Your task to perform on an android device: turn on data saver in the chrome app Image 0: 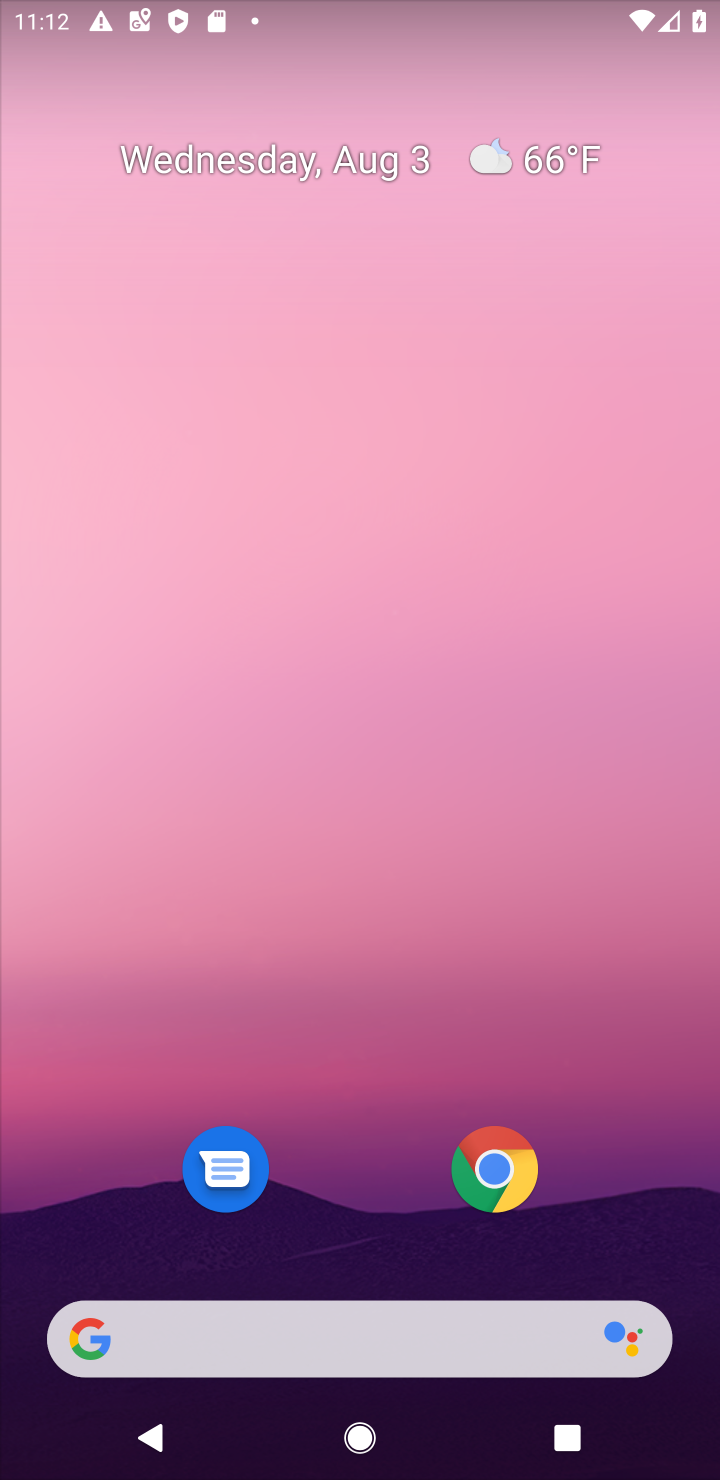
Step 0: click (507, 1178)
Your task to perform on an android device: turn on data saver in the chrome app Image 1: 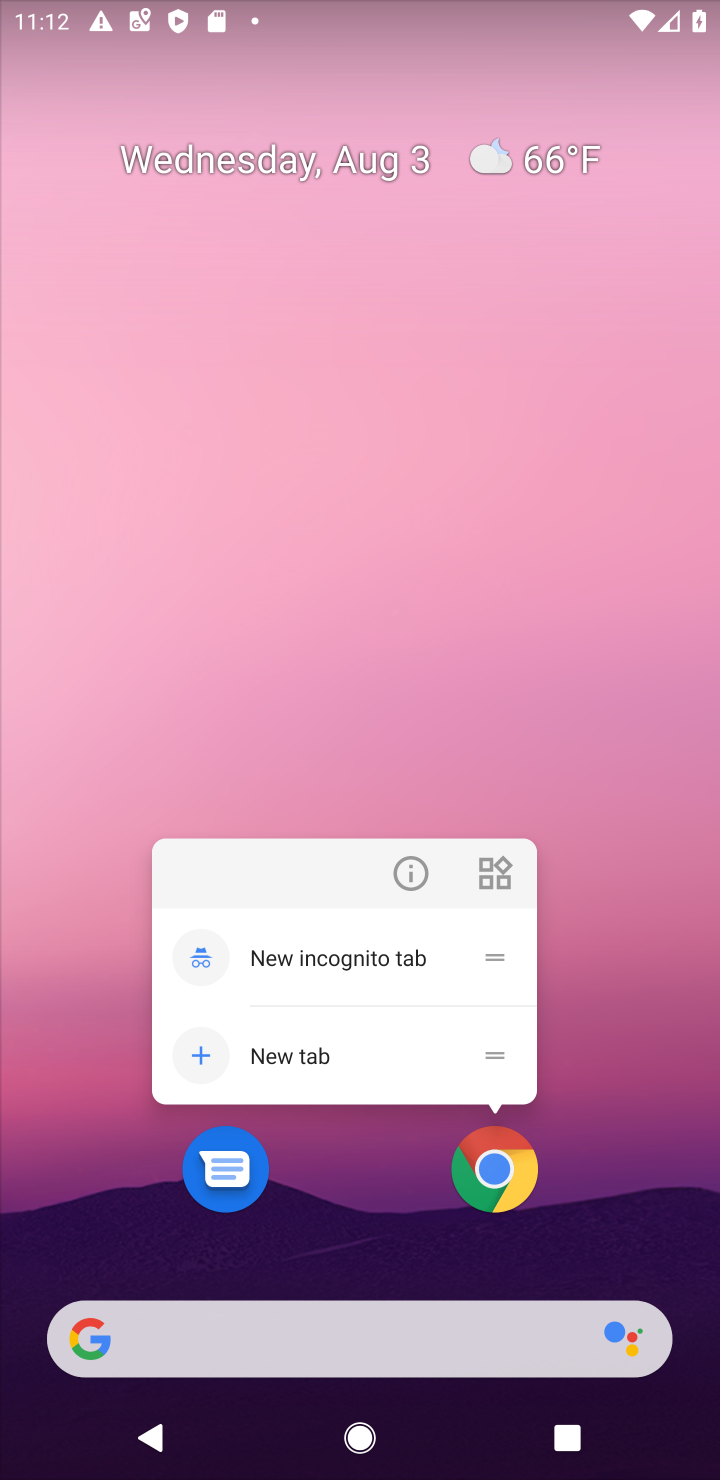
Step 1: click (507, 1176)
Your task to perform on an android device: turn on data saver in the chrome app Image 2: 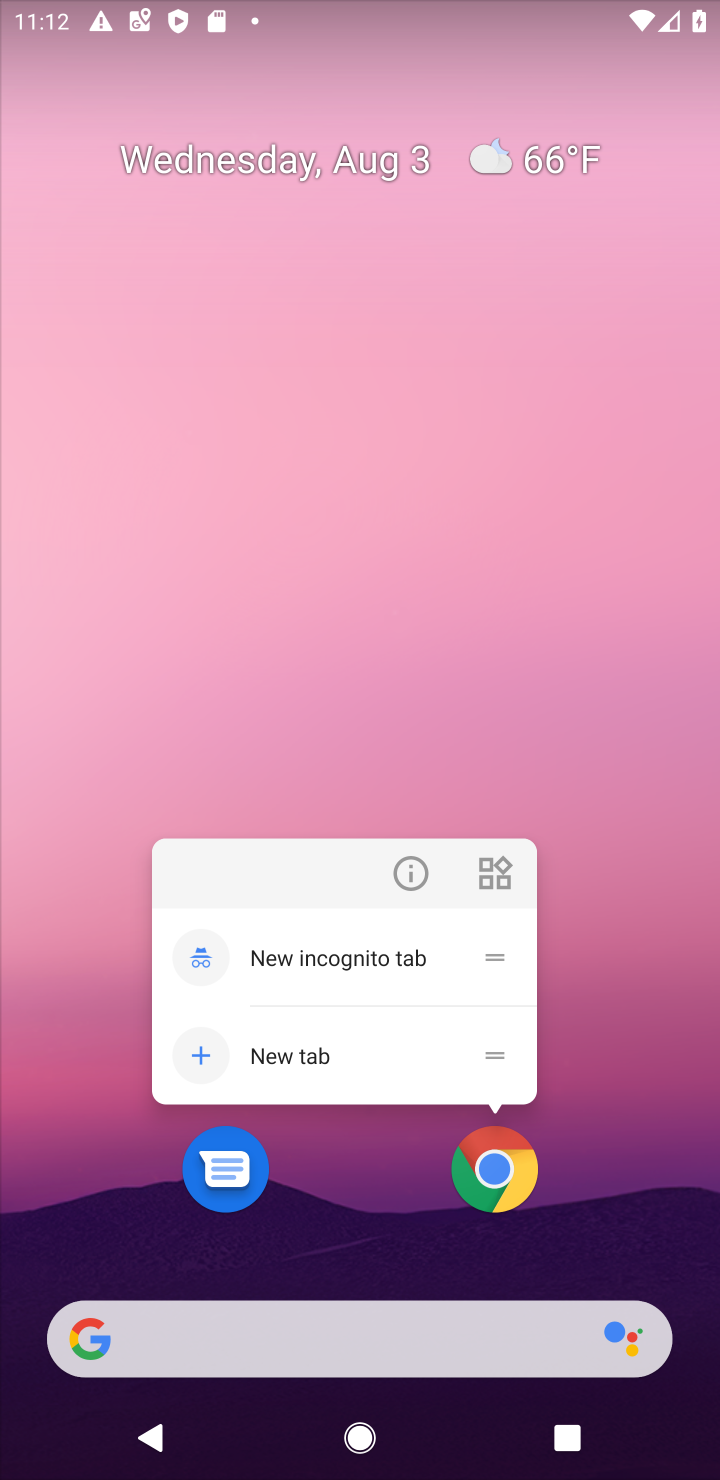
Step 2: click (501, 1181)
Your task to perform on an android device: turn on data saver in the chrome app Image 3: 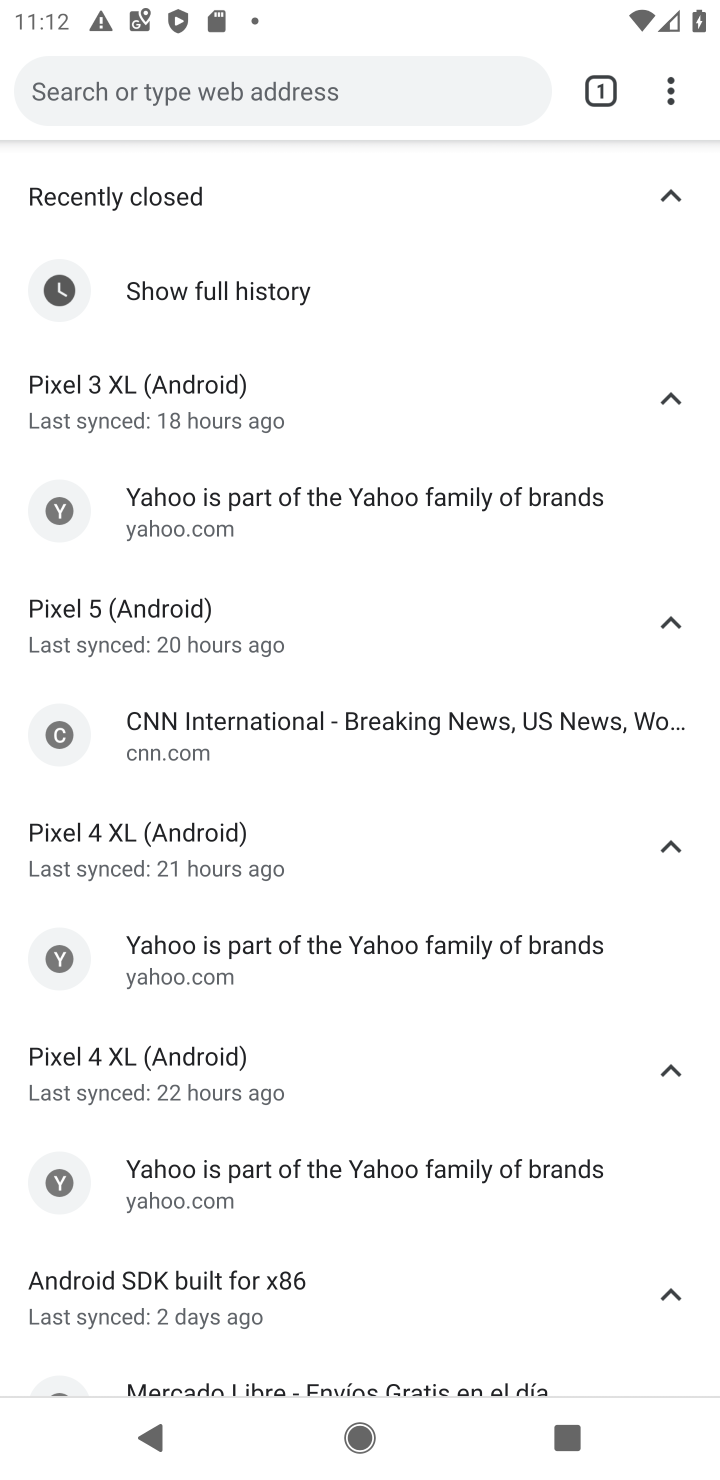
Step 3: drag from (673, 83) to (336, 767)
Your task to perform on an android device: turn on data saver in the chrome app Image 4: 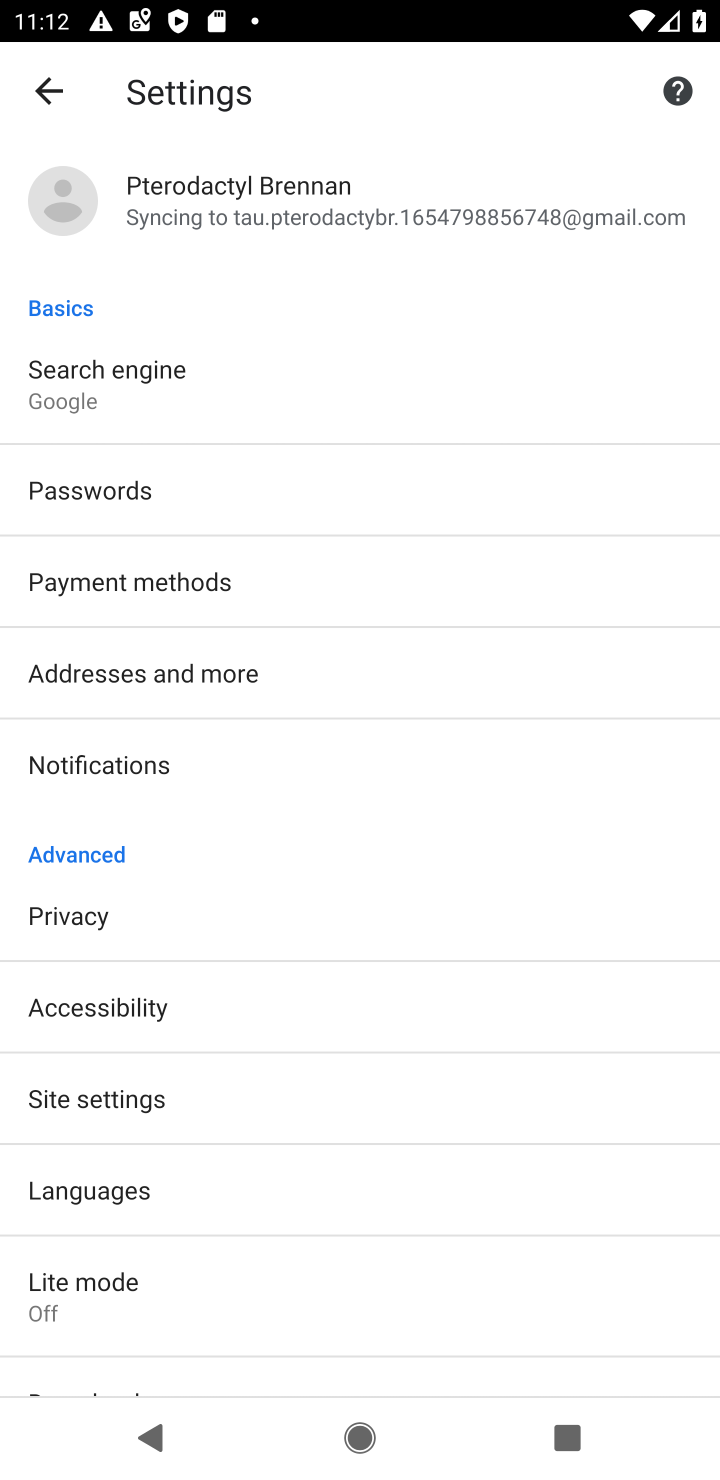
Step 4: click (66, 1282)
Your task to perform on an android device: turn on data saver in the chrome app Image 5: 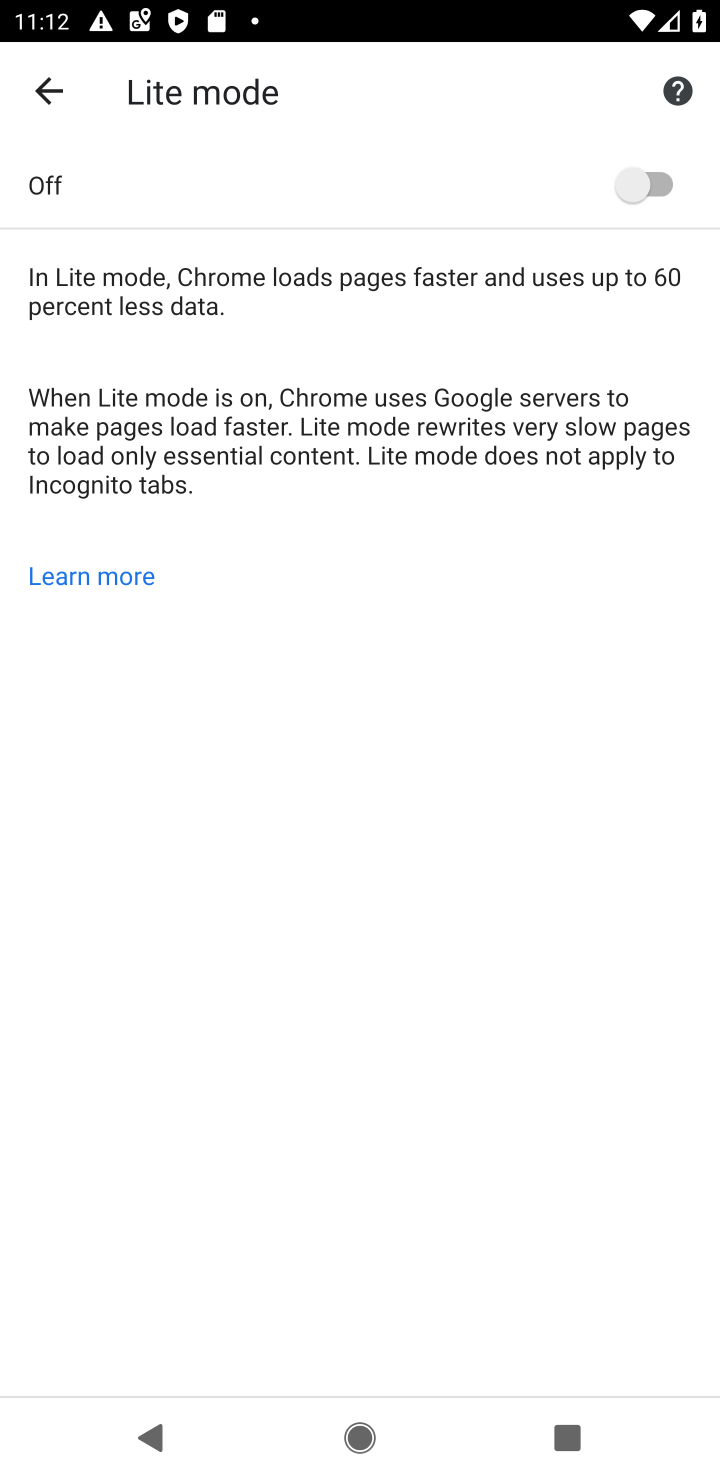
Step 5: click (638, 189)
Your task to perform on an android device: turn on data saver in the chrome app Image 6: 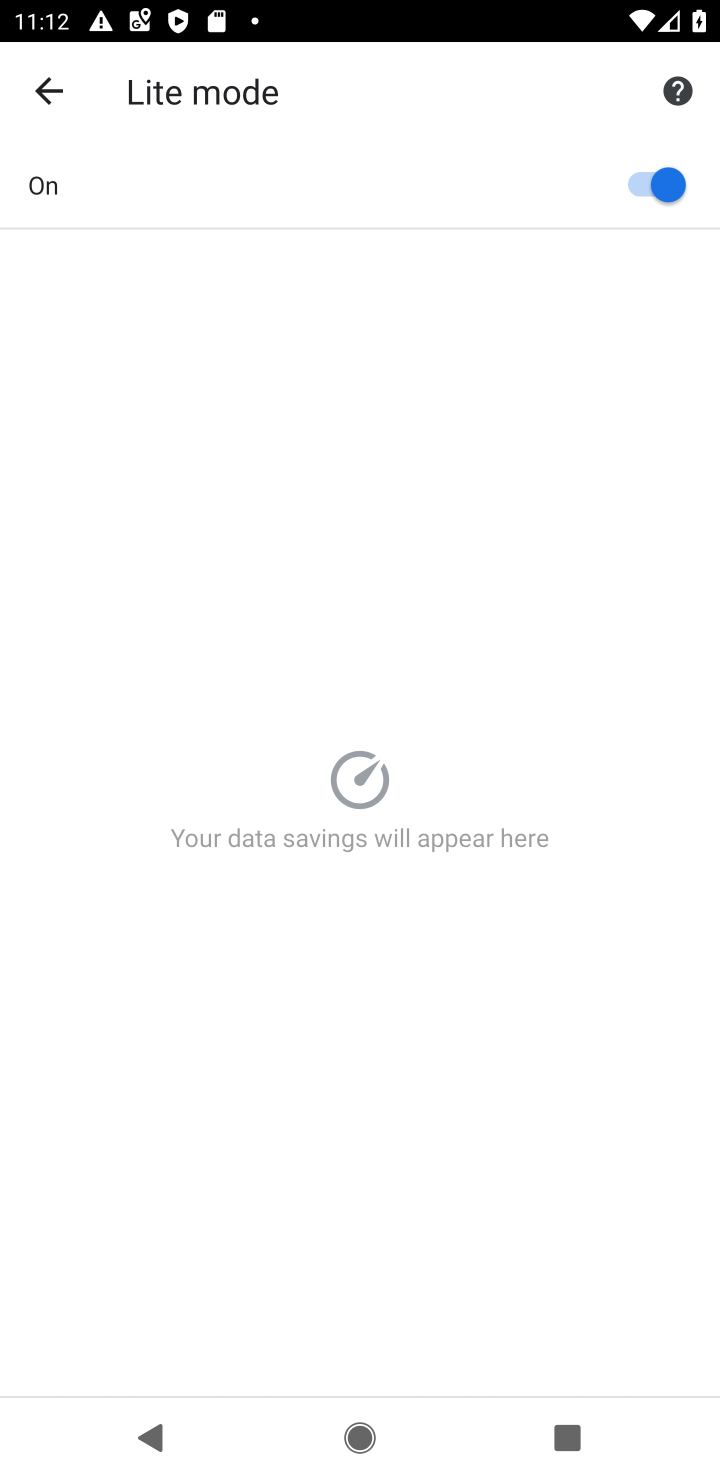
Step 6: task complete